Your task to perform on an android device: Is it going to rain this weekend? Image 0: 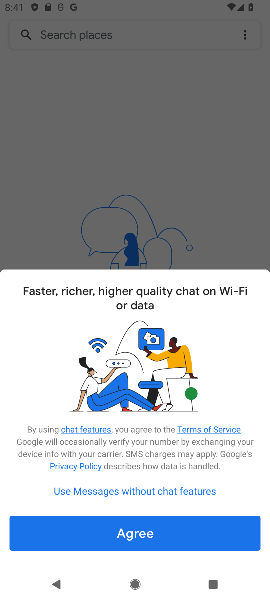
Step 0: press home button
Your task to perform on an android device: Is it going to rain this weekend? Image 1: 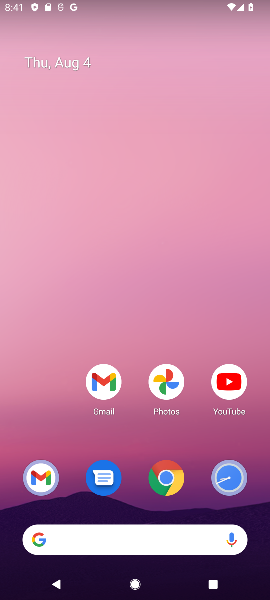
Step 1: click (168, 466)
Your task to perform on an android device: Is it going to rain this weekend? Image 2: 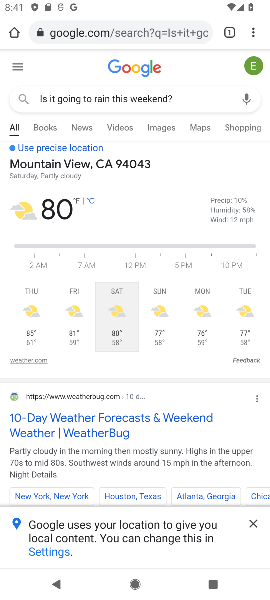
Step 2: task complete